Your task to perform on an android device: What's on my calendar tomorrow? Image 0: 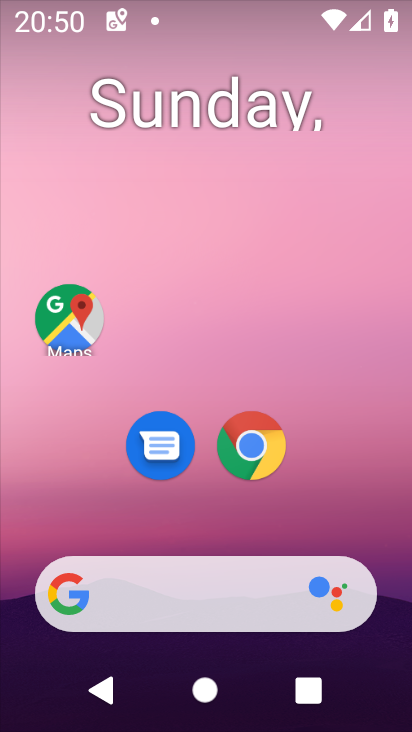
Step 0: drag from (27, 620) to (268, 98)
Your task to perform on an android device: What's on my calendar tomorrow? Image 1: 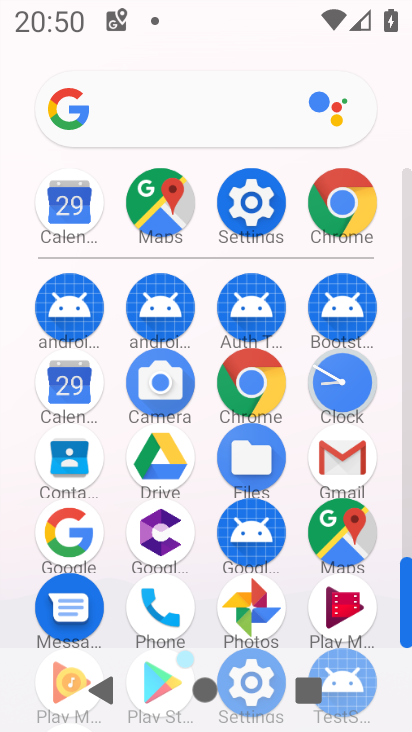
Step 1: click (75, 382)
Your task to perform on an android device: What's on my calendar tomorrow? Image 2: 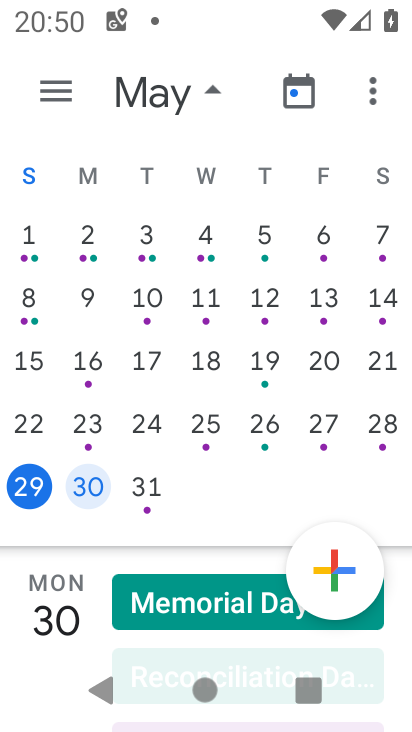
Step 2: click (100, 493)
Your task to perform on an android device: What's on my calendar tomorrow? Image 3: 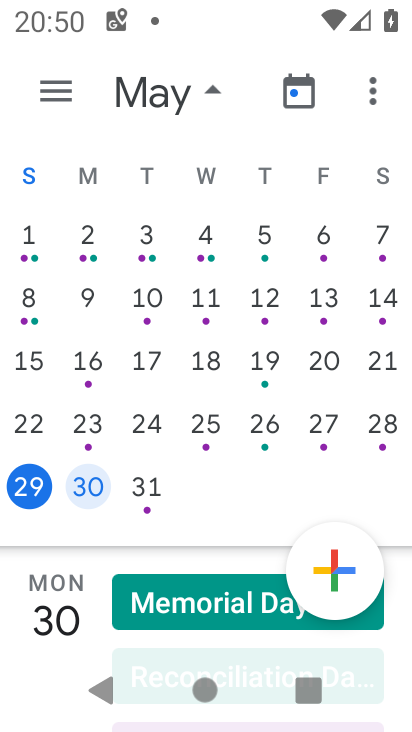
Step 3: task complete